Your task to perform on an android device: open chrome and create a bookmark for the current page Image 0: 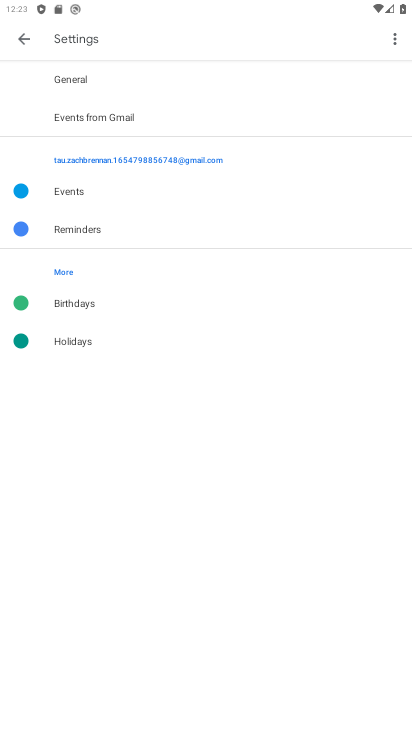
Step 0: press home button
Your task to perform on an android device: open chrome and create a bookmark for the current page Image 1: 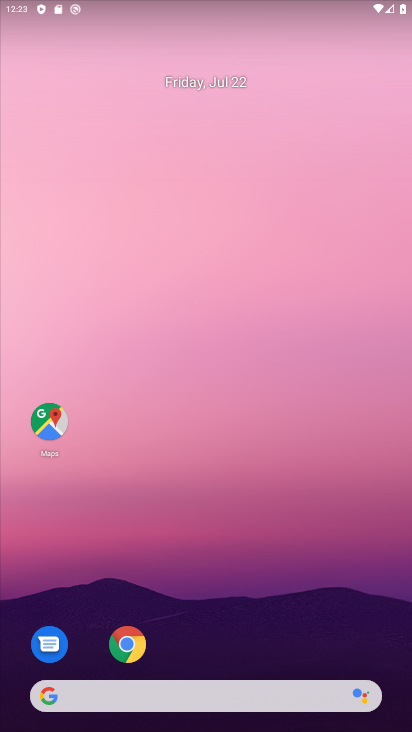
Step 1: click (130, 636)
Your task to perform on an android device: open chrome and create a bookmark for the current page Image 2: 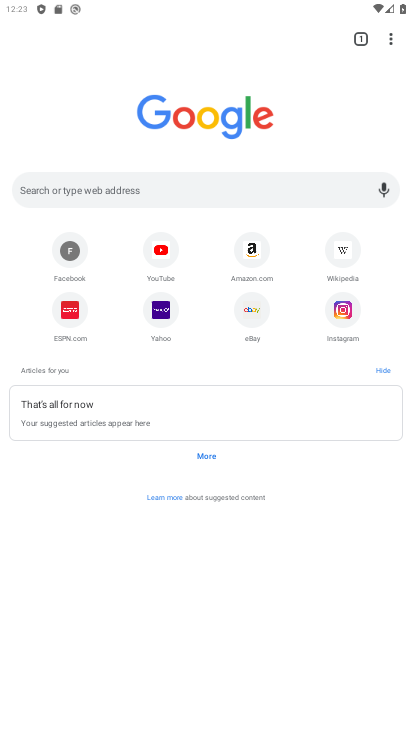
Step 2: click (395, 36)
Your task to perform on an android device: open chrome and create a bookmark for the current page Image 3: 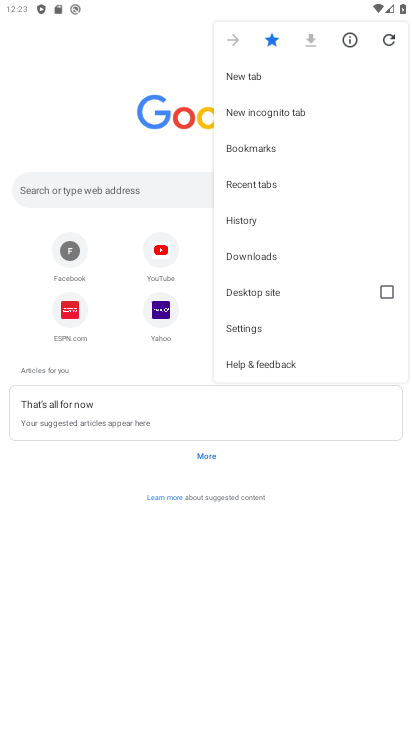
Step 3: task complete